Your task to perform on an android device: Open network settings Image 0: 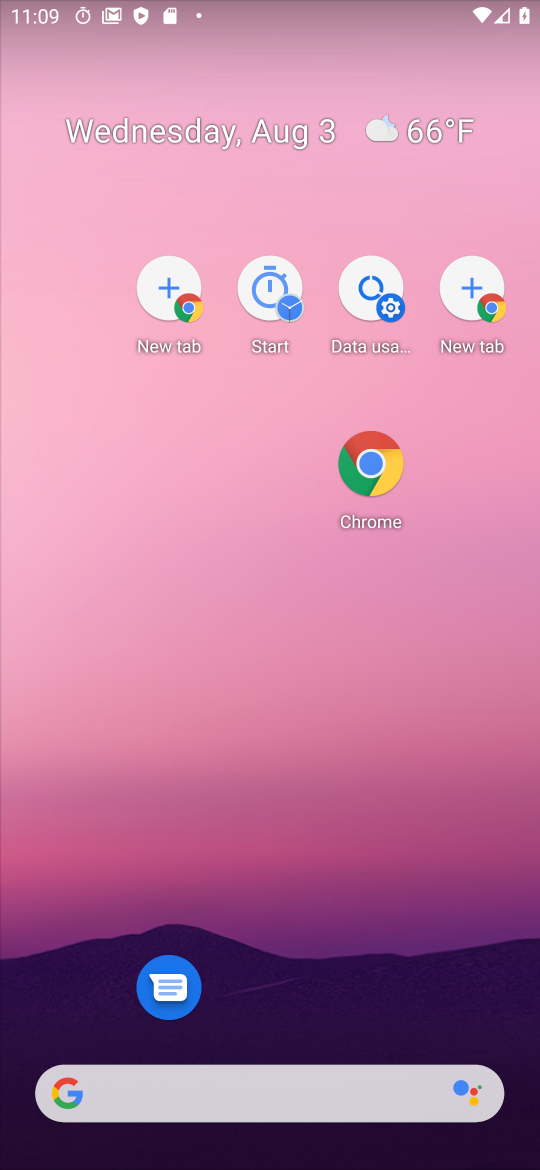
Step 0: drag from (243, 1068) to (176, 210)
Your task to perform on an android device: Open network settings Image 1: 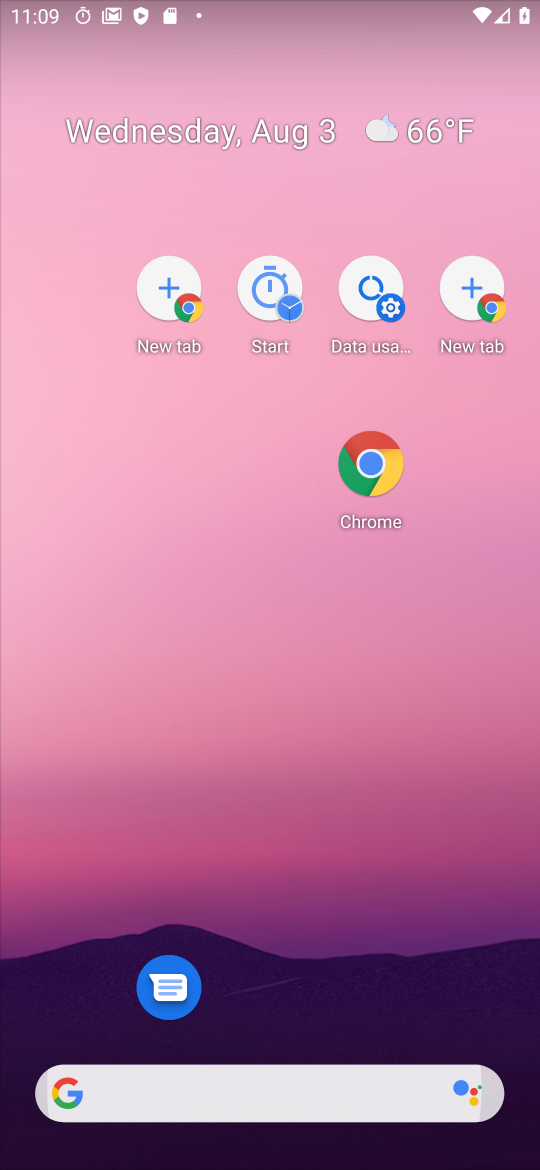
Step 1: drag from (320, 693) to (236, 168)
Your task to perform on an android device: Open network settings Image 2: 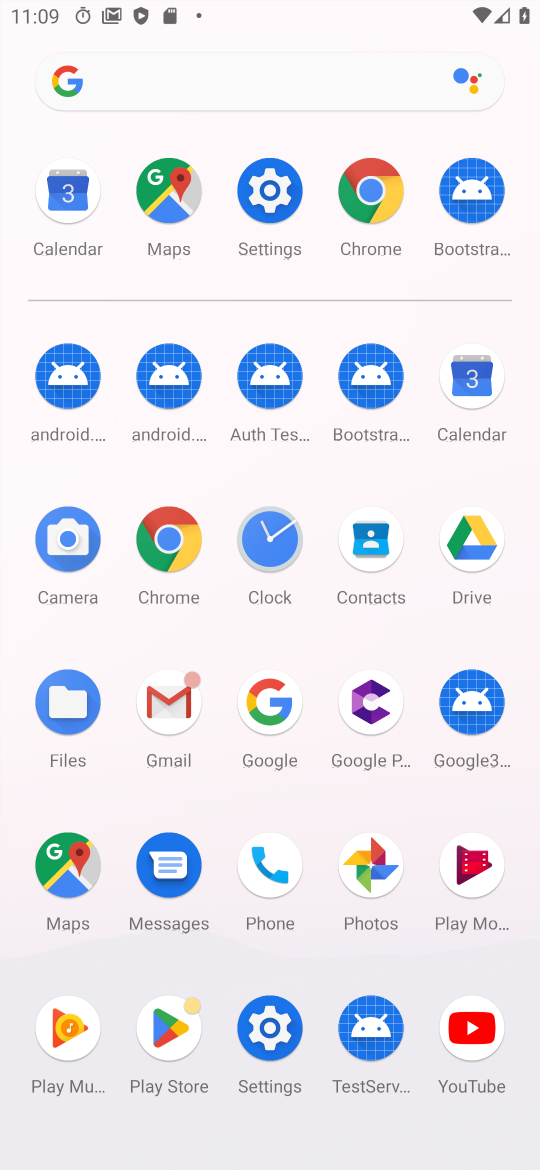
Step 2: drag from (305, 700) to (303, 272)
Your task to perform on an android device: Open network settings Image 3: 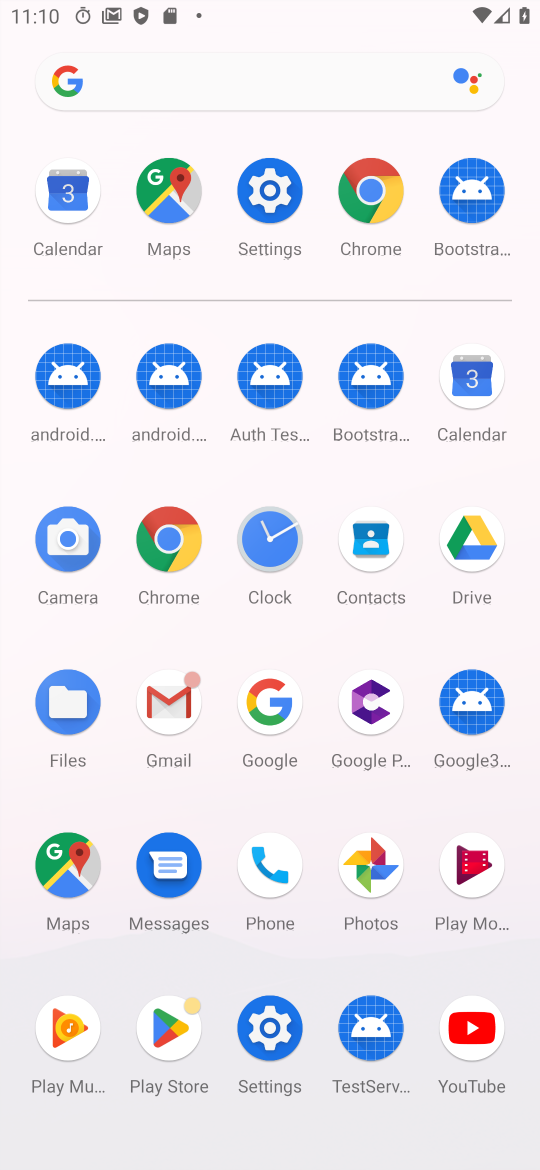
Step 3: click (261, 189)
Your task to perform on an android device: Open network settings Image 4: 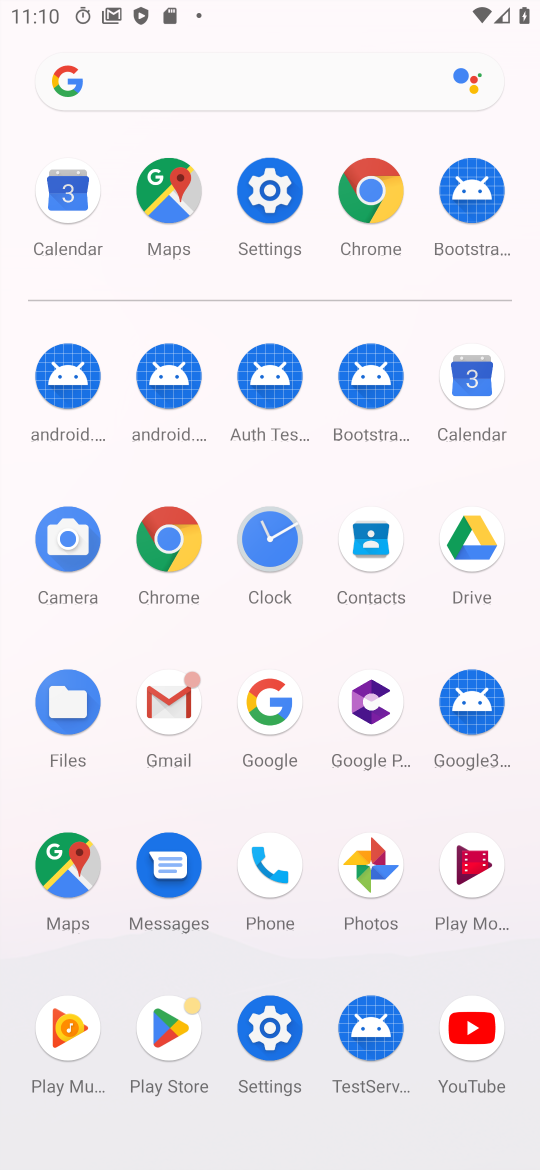
Step 4: click (260, 187)
Your task to perform on an android device: Open network settings Image 5: 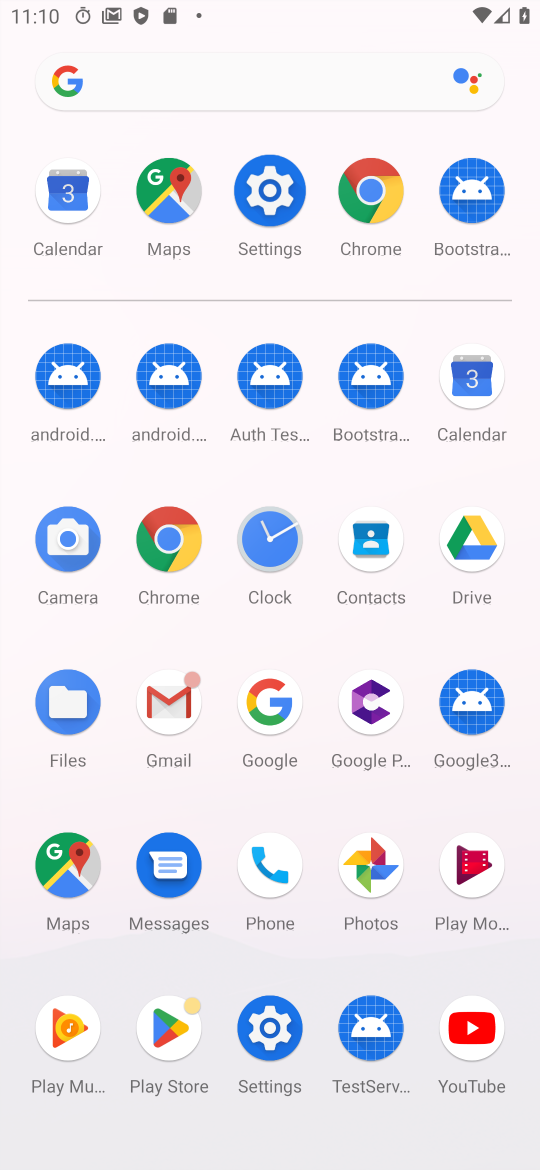
Step 5: click (264, 189)
Your task to perform on an android device: Open network settings Image 6: 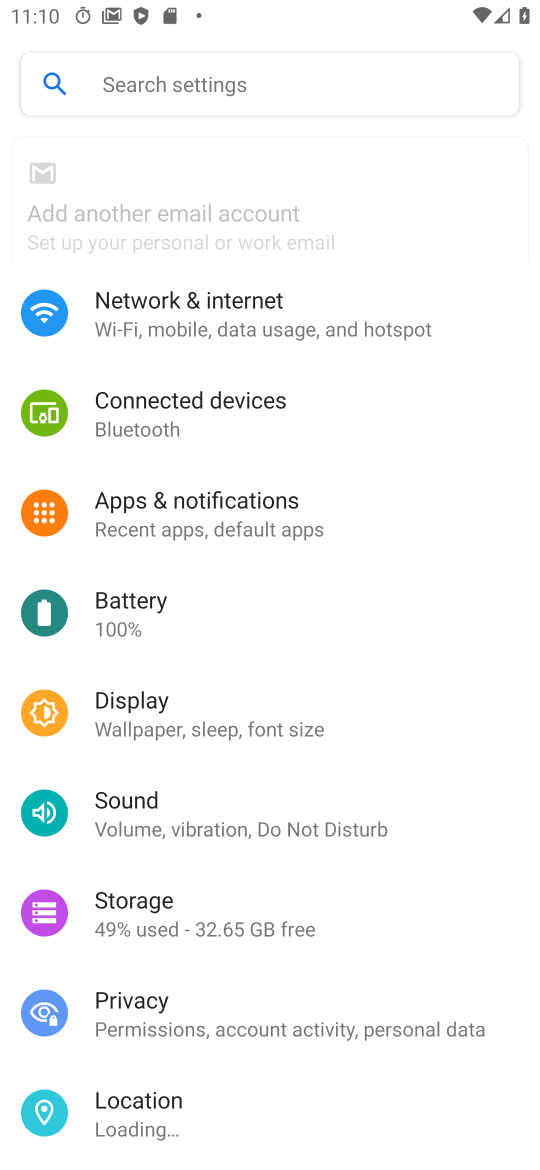
Step 6: click (232, 183)
Your task to perform on an android device: Open network settings Image 7: 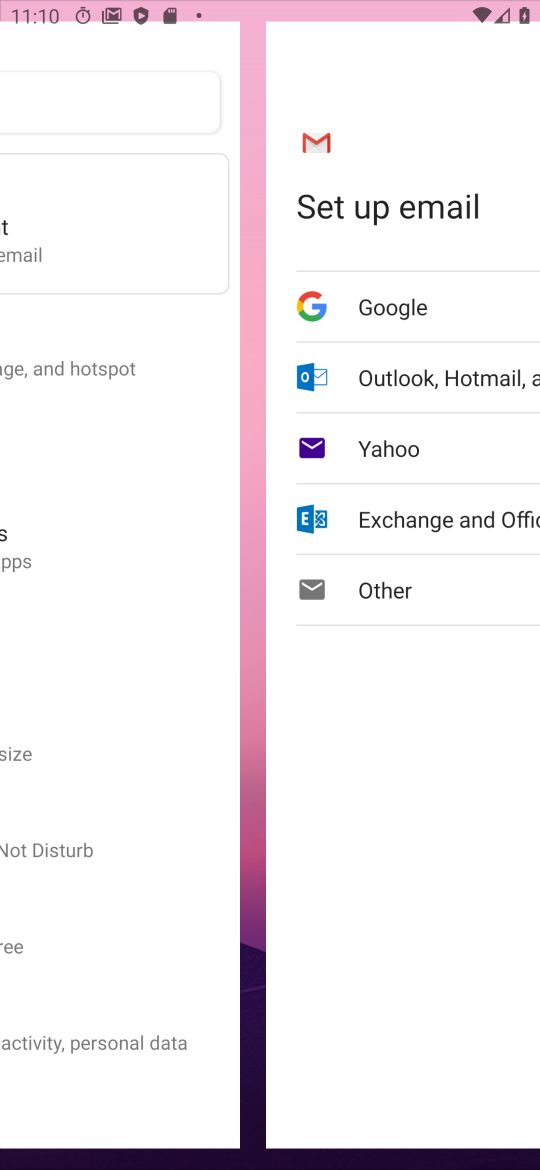
Step 7: click (230, 343)
Your task to perform on an android device: Open network settings Image 8: 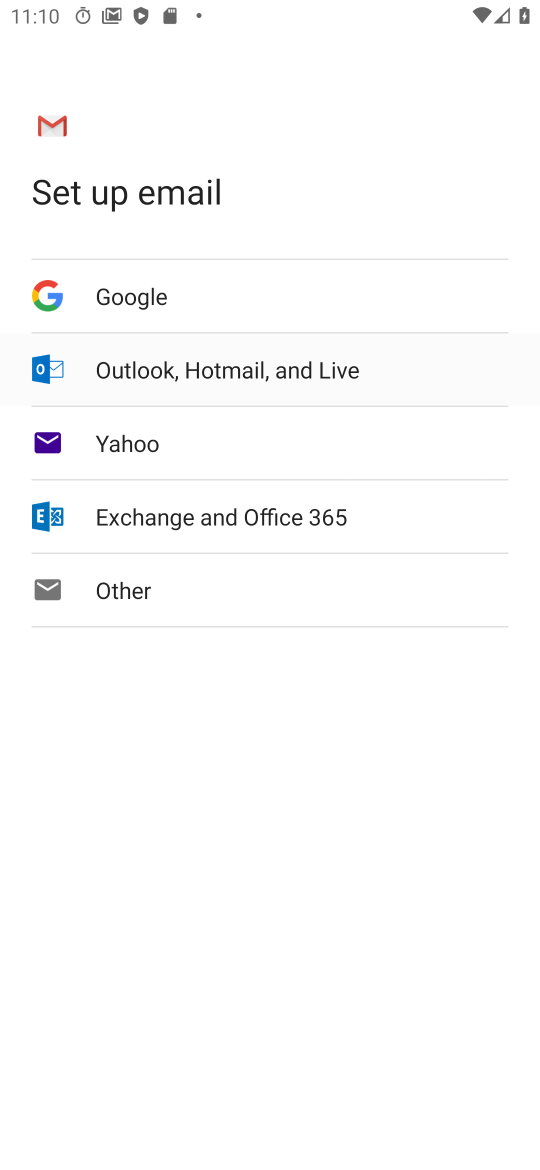
Step 8: click (58, 64)
Your task to perform on an android device: Open network settings Image 9: 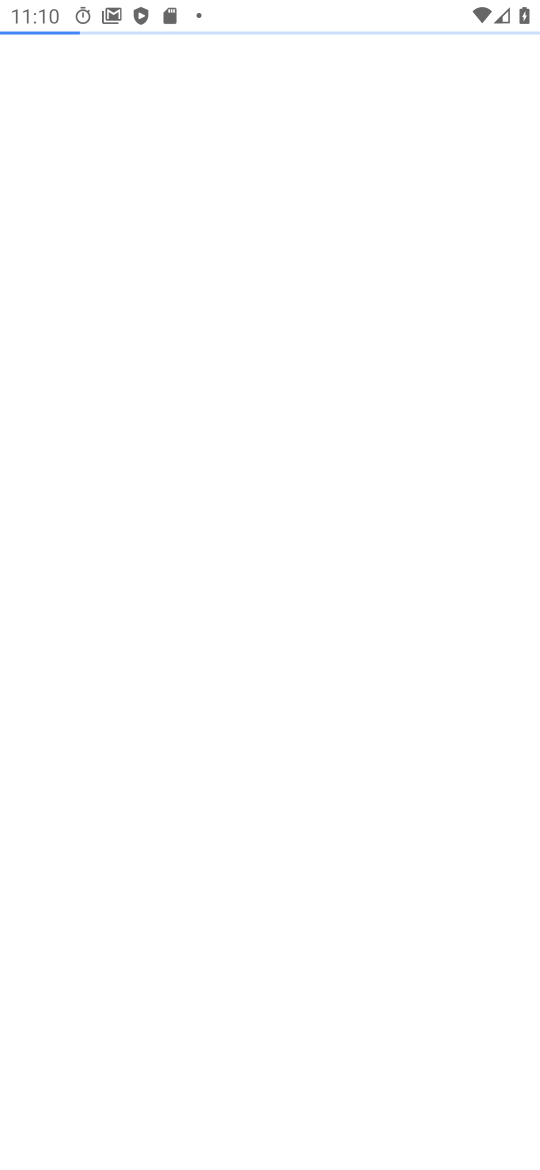
Step 9: press back button
Your task to perform on an android device: Open network settings Image 10: 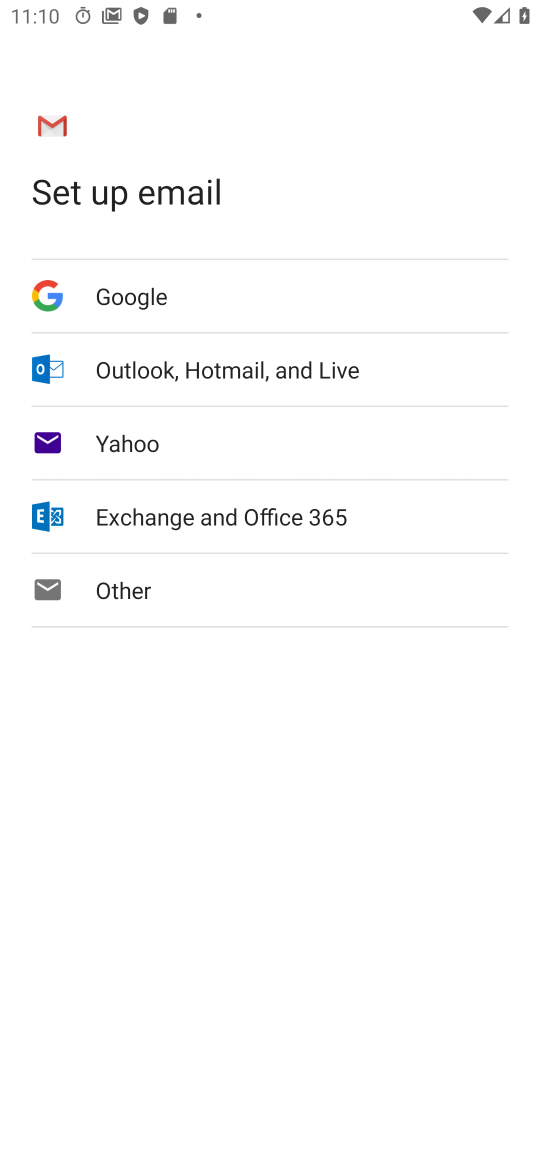
Step 10: press back button
Your task to perform on an android device: Open network settings Image 11: 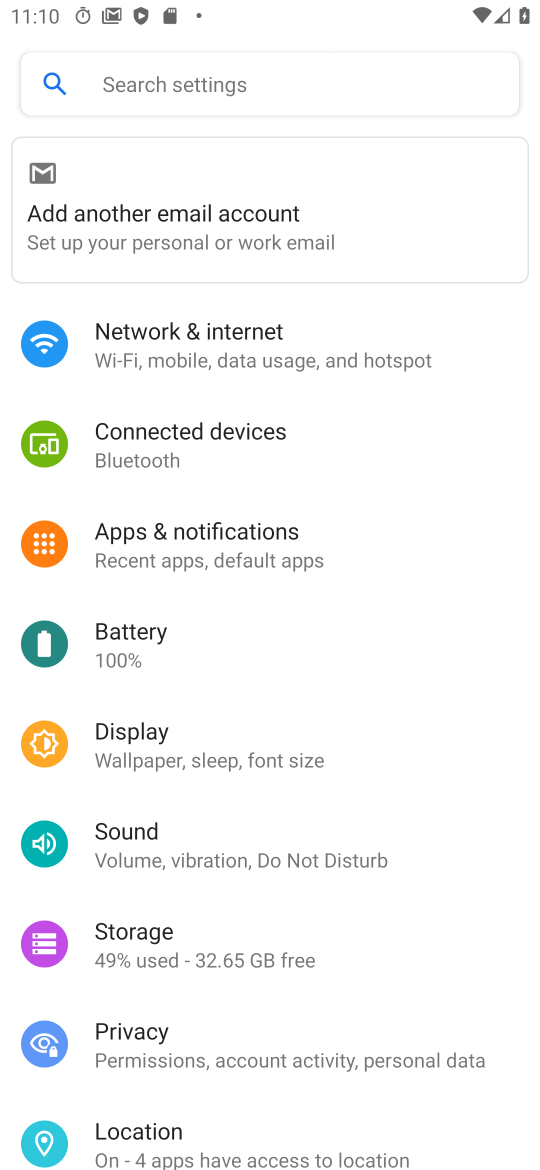
Step 11: click (189, 338)
Your task to perform on an android device: Open network settings Image 12: 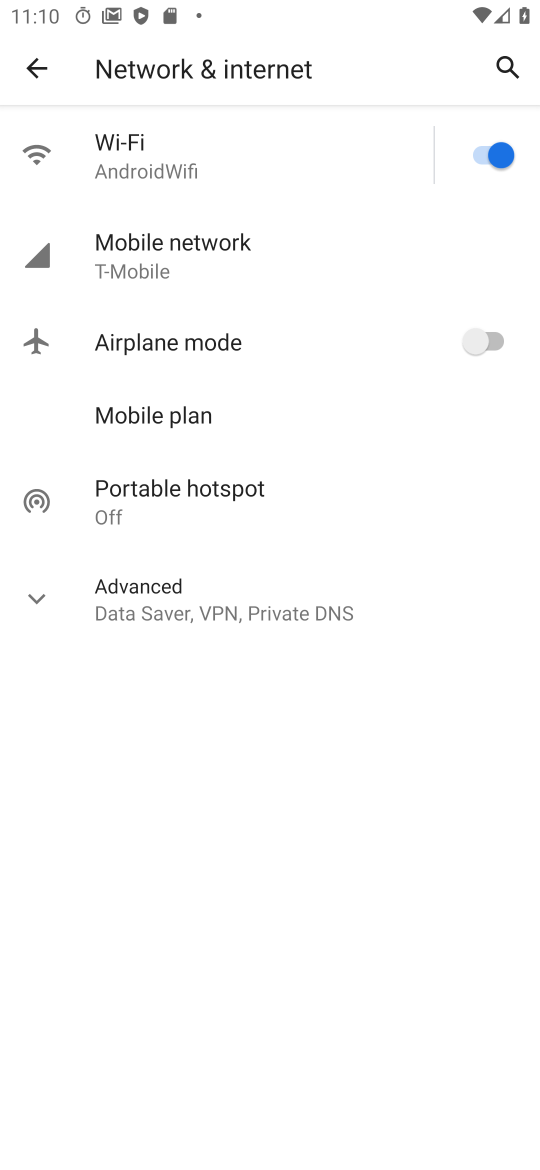
Step 12: task complete